Your task to perform on an android device: install app "Speedtest by Ookla" Image 0: 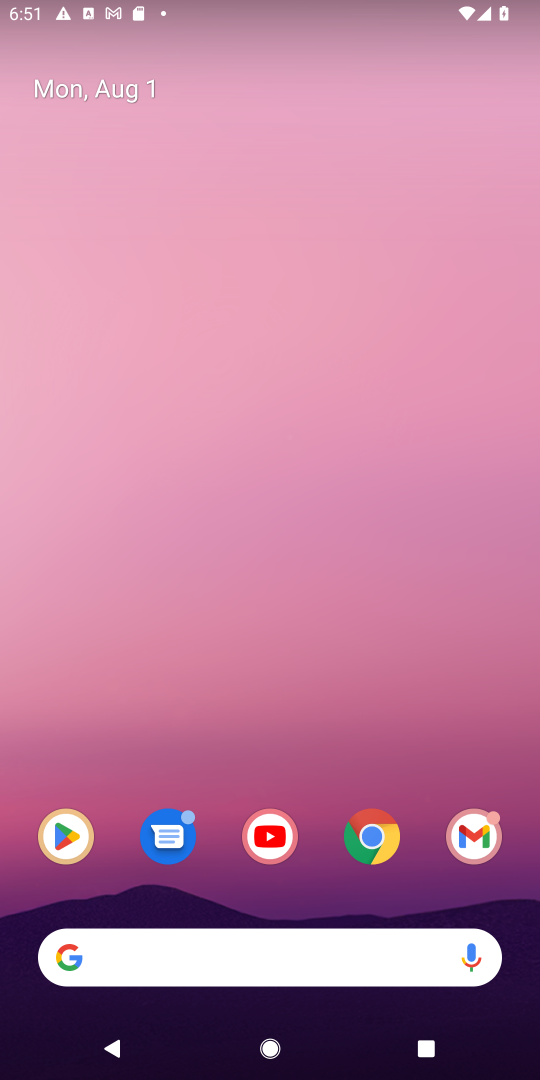
Step 0: press home button
Your task to perform on an android device: install app "Speedtest by Ookla" Image 1: 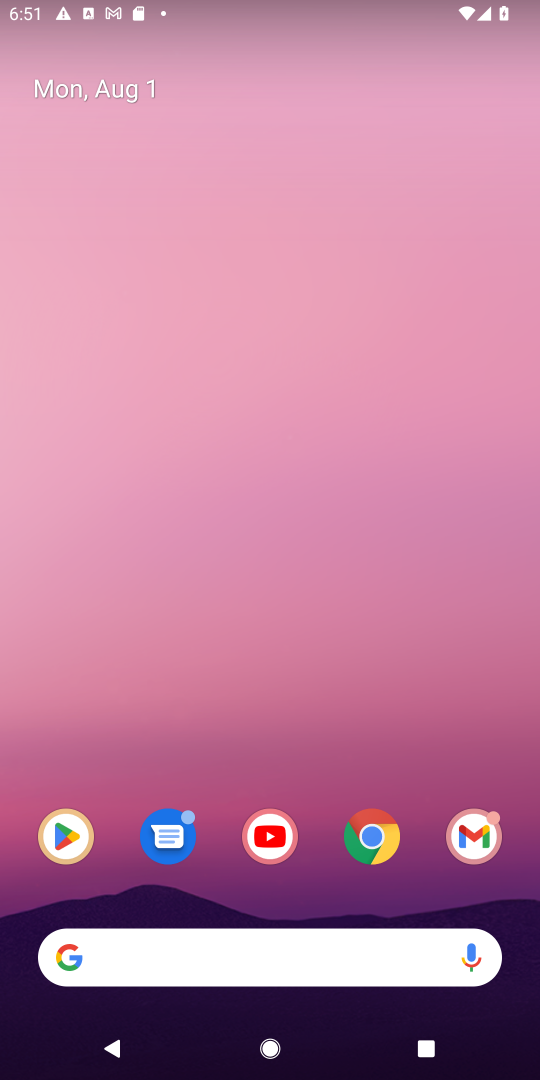
Step 1: click (69, 834)
Your task to perform on an android device: install app "Speedtest by Ookla" Image 2: 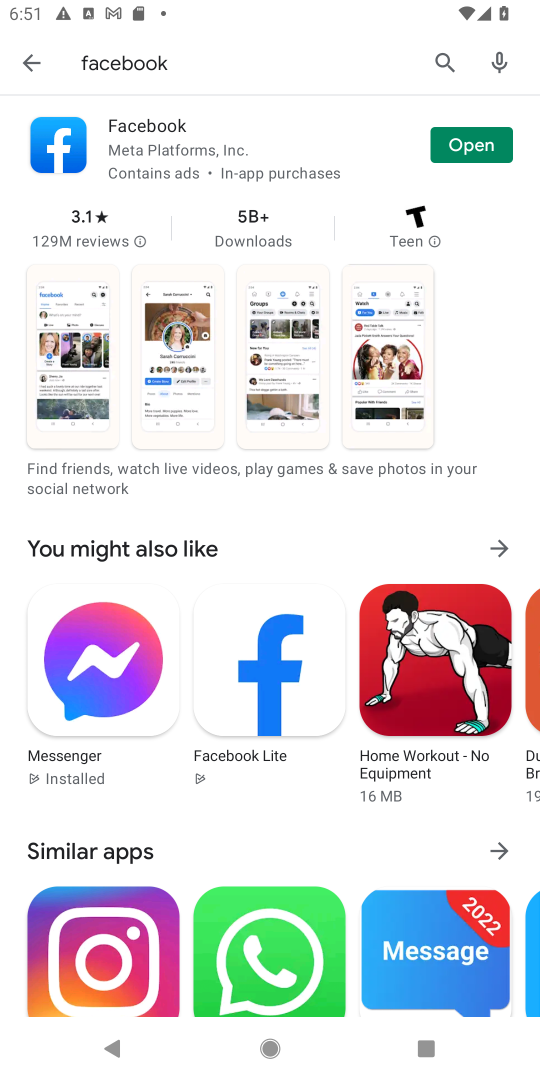
Step 2: click (437, 54)
Your task to perform on an android device: install app "Speedtest by Ookla" Image 3: 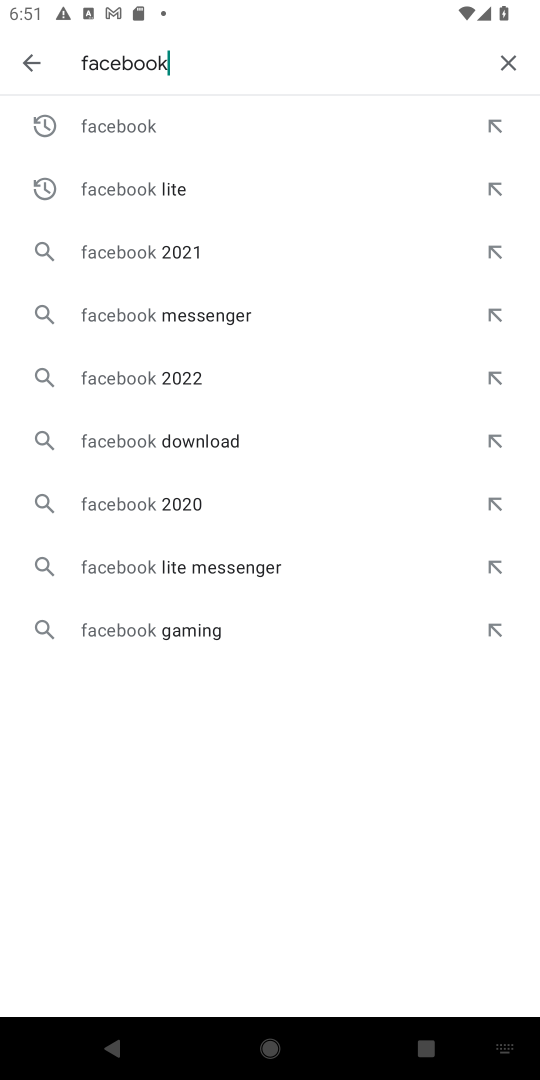
Step 3: click (500, 54)
Your task to perform on an android device: install app "Speedtest by Ookla" Image 4: 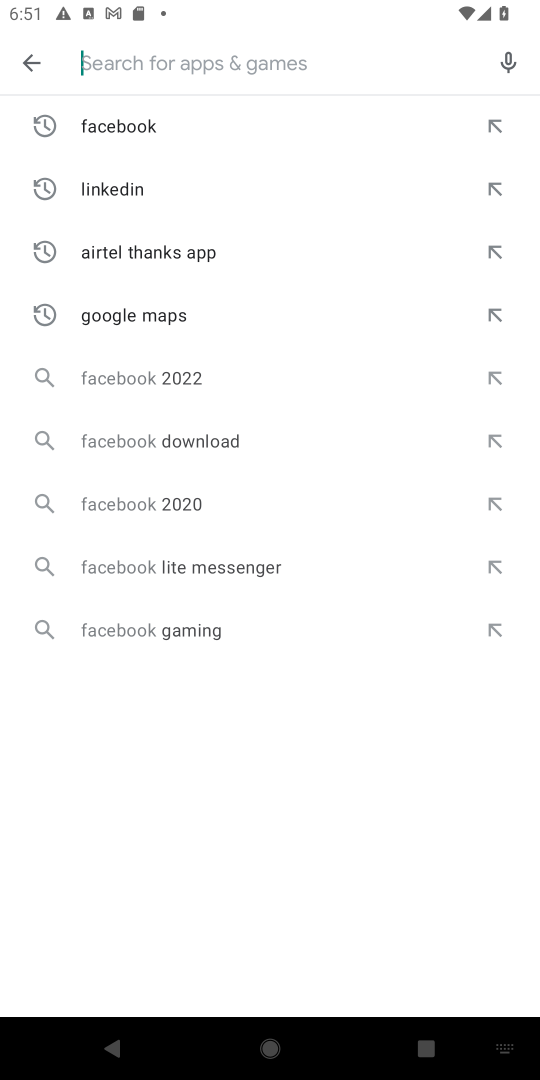
Step 4: click (504, 59)
Your task to perform on an android device: install app "Speedtest by Ookla" Image 5: 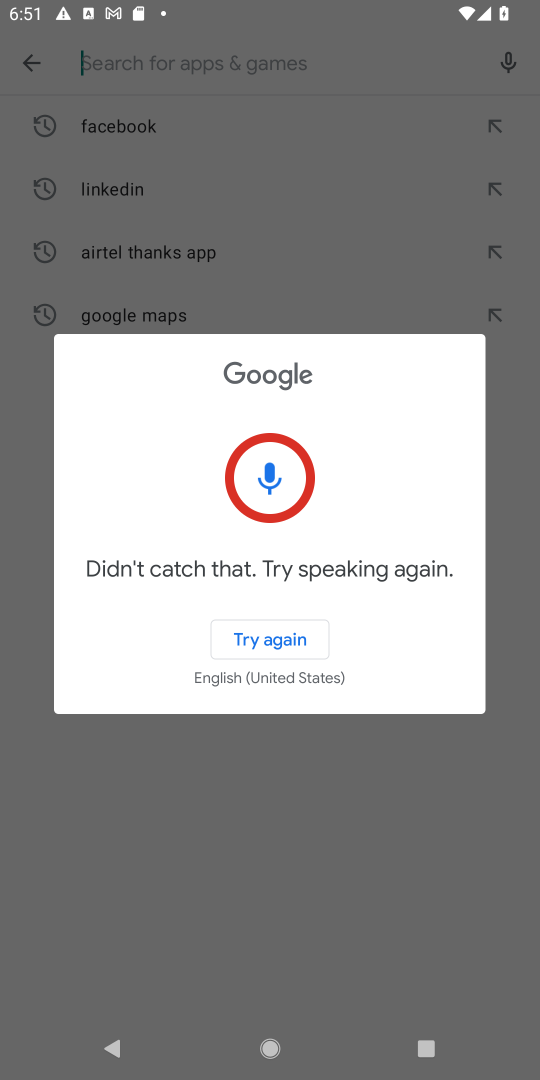
Step 5: click (356, 808)
Your task to perform on an android device: install app "Speedtest by Ookla" Image 6: 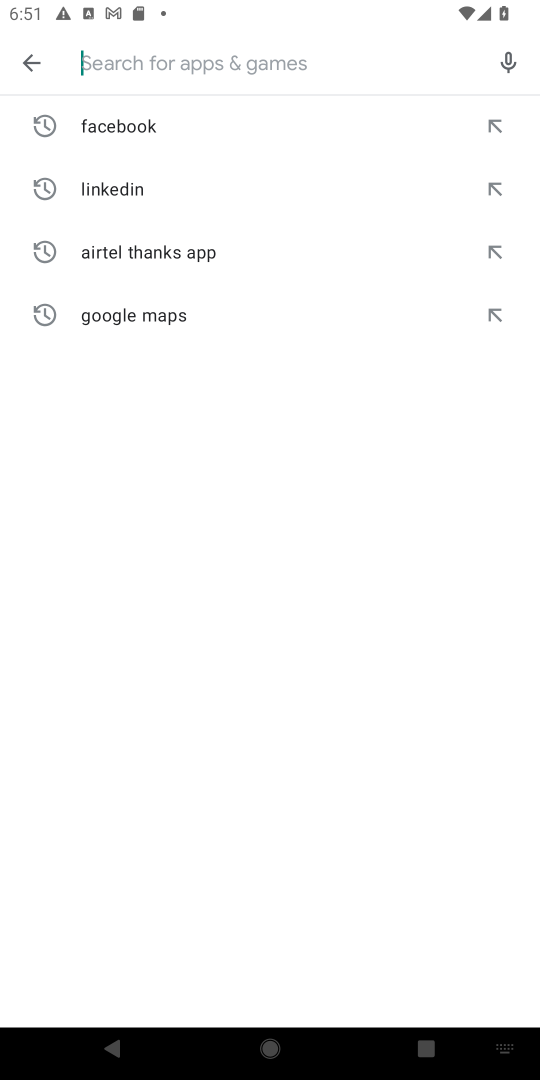
Step 6: click (327, 779)
Your task to perform on an android device: install app "Speedtest by Ookla" Image 7: 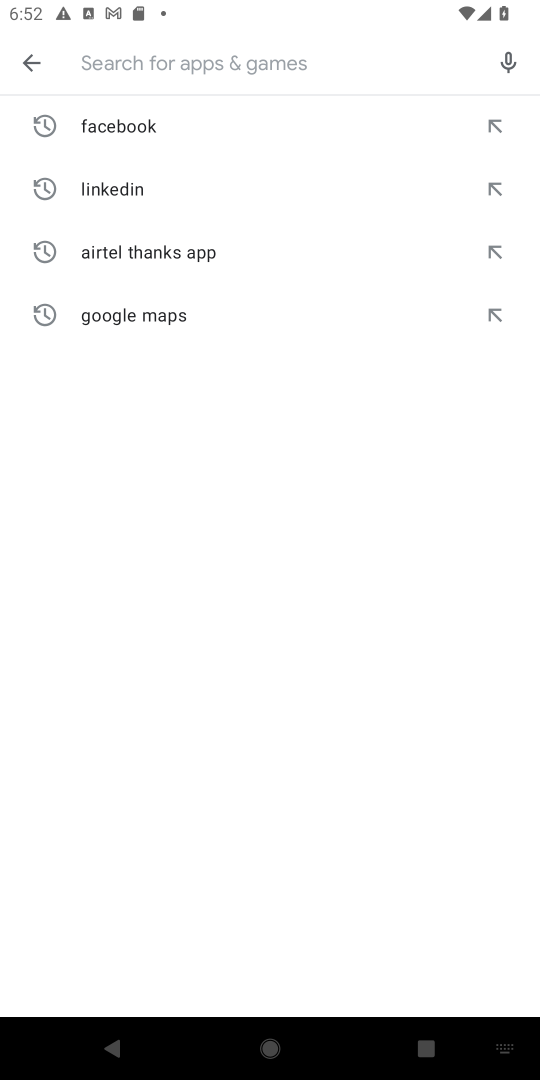
Step 7: type "Speedtest by Ookla"
Your task to perform on an android device: install app "Speedtest by Ookla" Image 8: 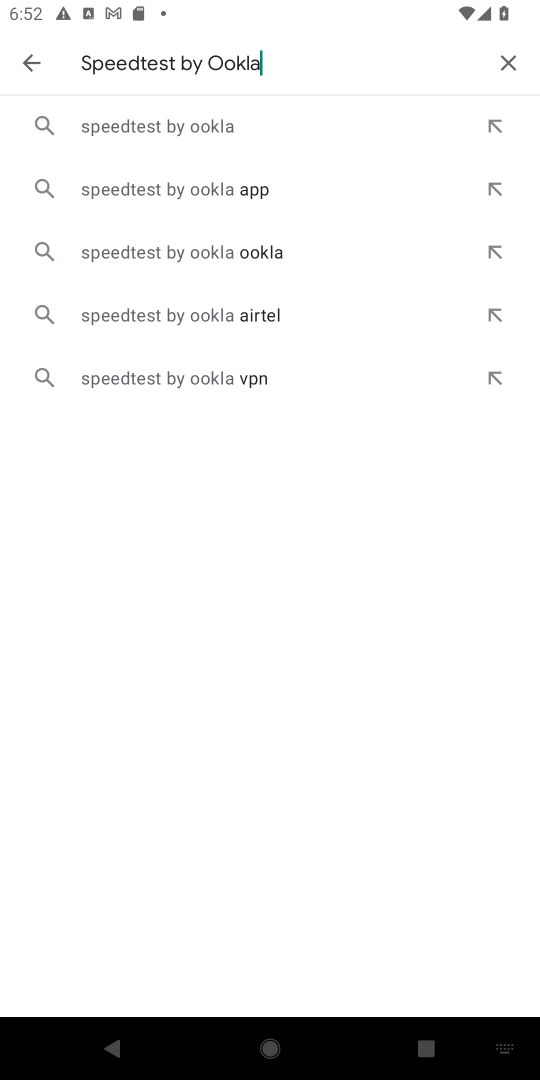
Step 8: click (168, 121)
Your task to perform on an android device: install app "Speedtest by Ookla" Image 9: 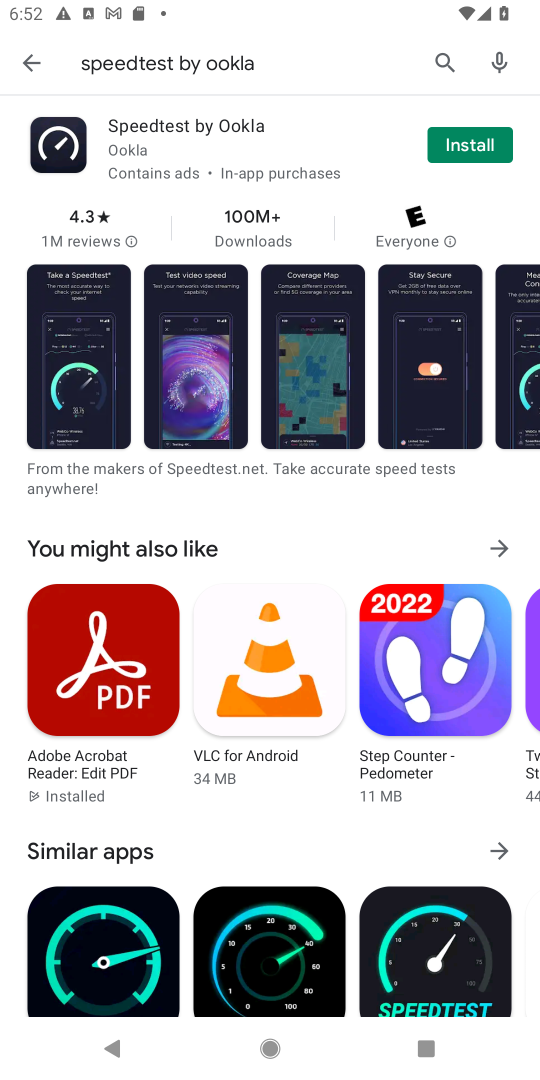
Step 9: click (481, 131)
Your task to perform on an android device: install app "Speedtest by Ookla" Image 10: 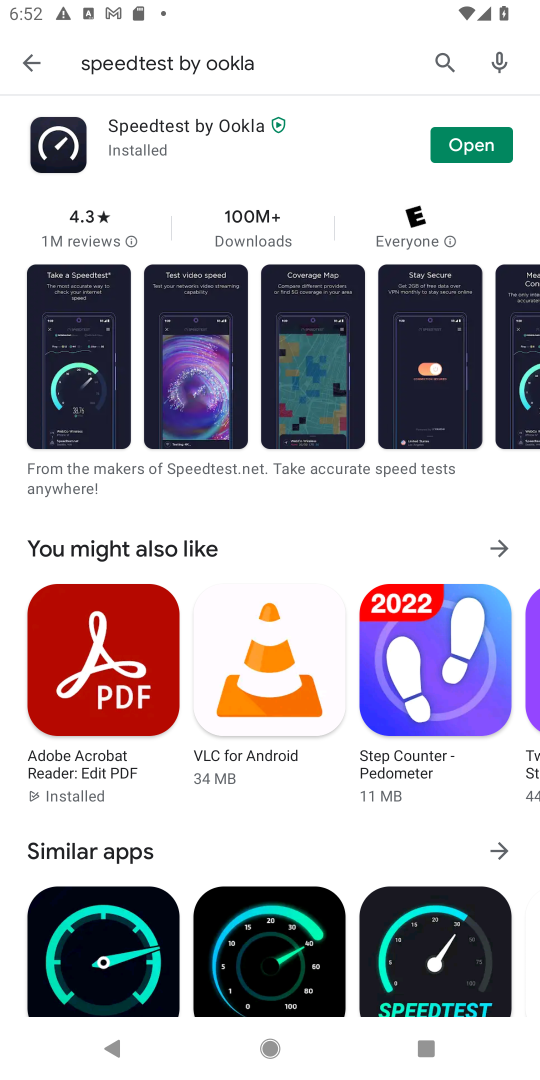
Step 10: task complete